Your task to perform on an android device: Open my contact list Image 0: 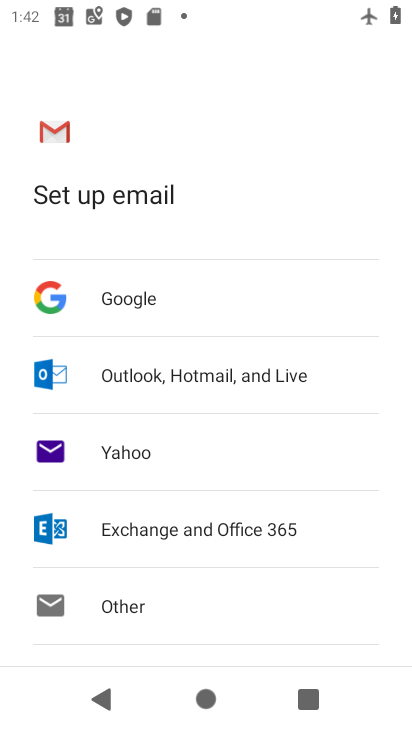
Step 0: press home button
Your task to perform on an android device: Open my contact list Image 1: 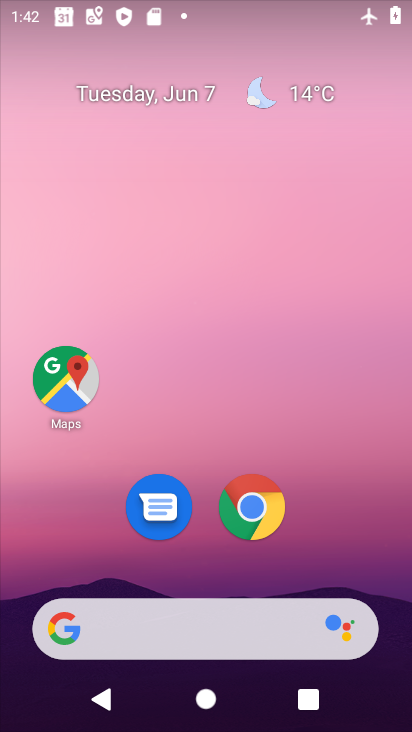
Step 1: drag from (403, 641) to (352, 100)
Your task to perform on an android device: Open my contact list Image 2: 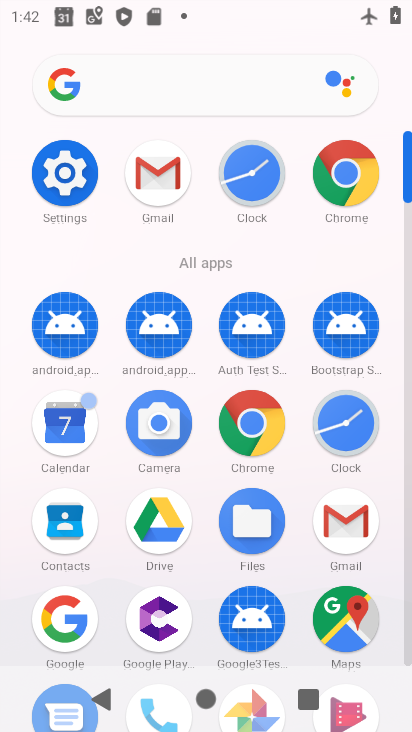
Step 2: click (407, 655)
Your task to perform on an android device: Open my contact list Image 3: 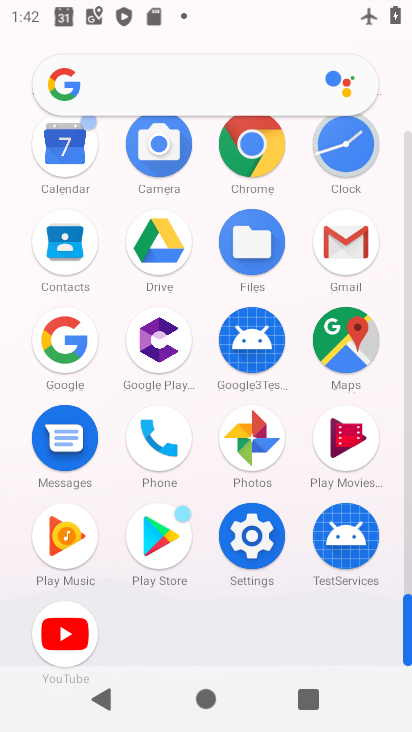
Step 3: click (61, 238)
Your task to perform on an android device: Open my contact list Image 4: 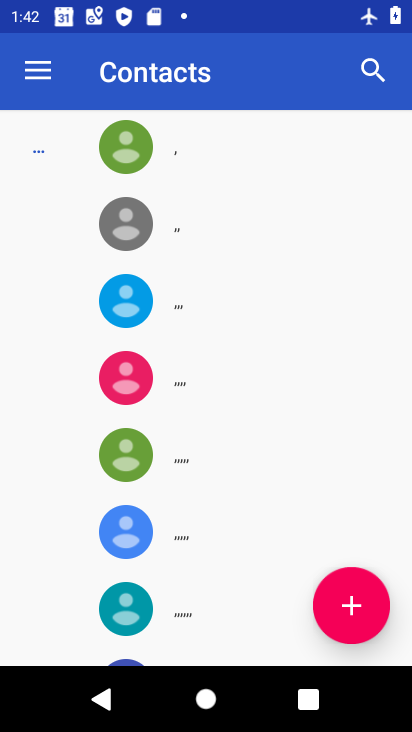
Step 4: task complete